Your task to perform on an android device: Go to notification settings Image 0: 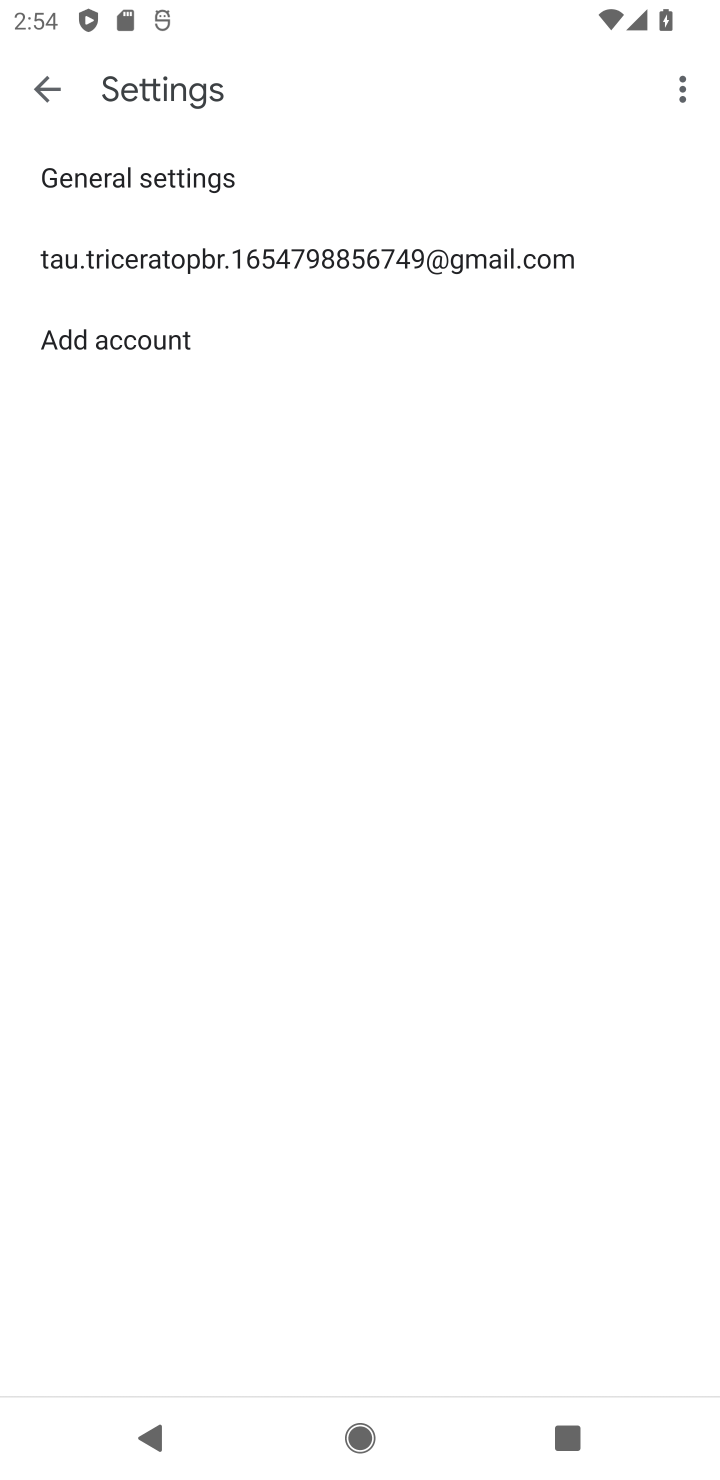
Step 0: press back button
Your task to perform on an android device: Go to notification settings Image 1: 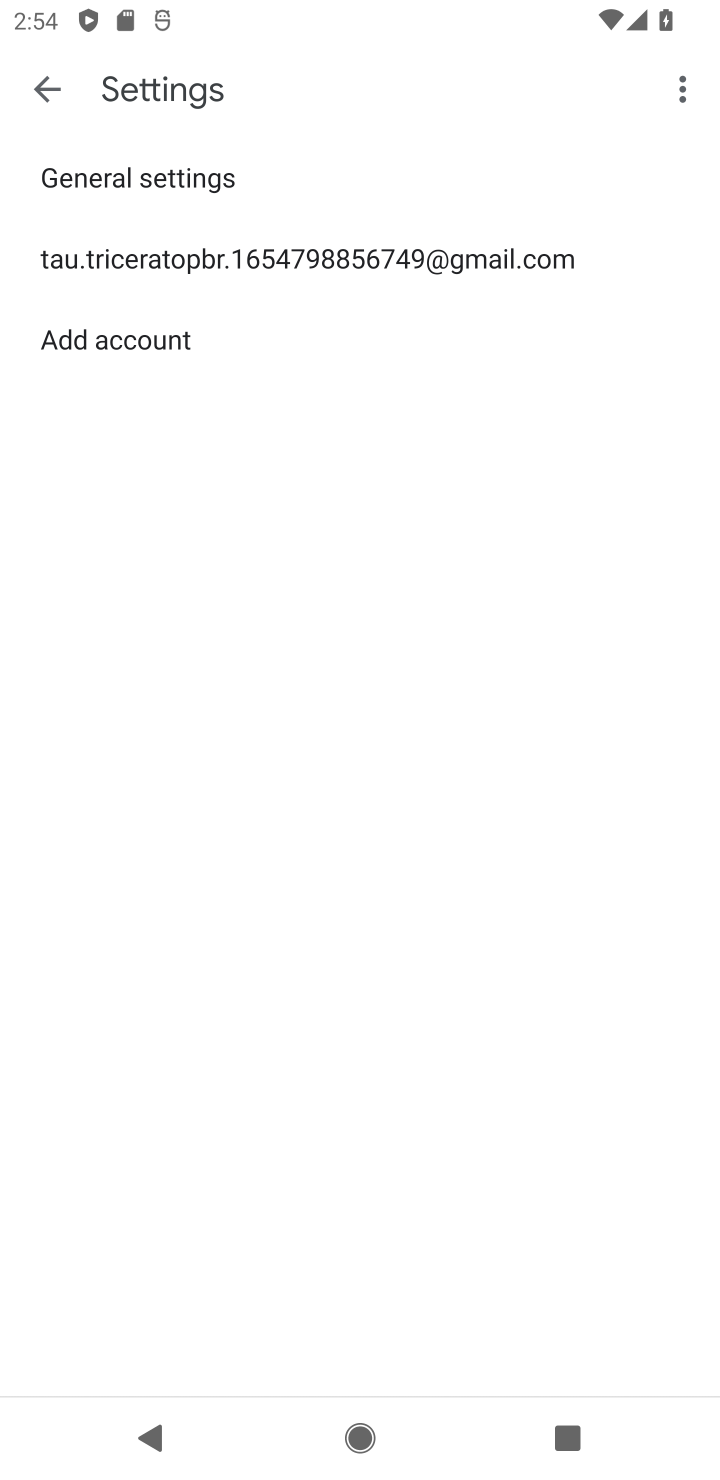
Step 1: press home button
Your task to perform on an android device: Go to notification settings Image 2: 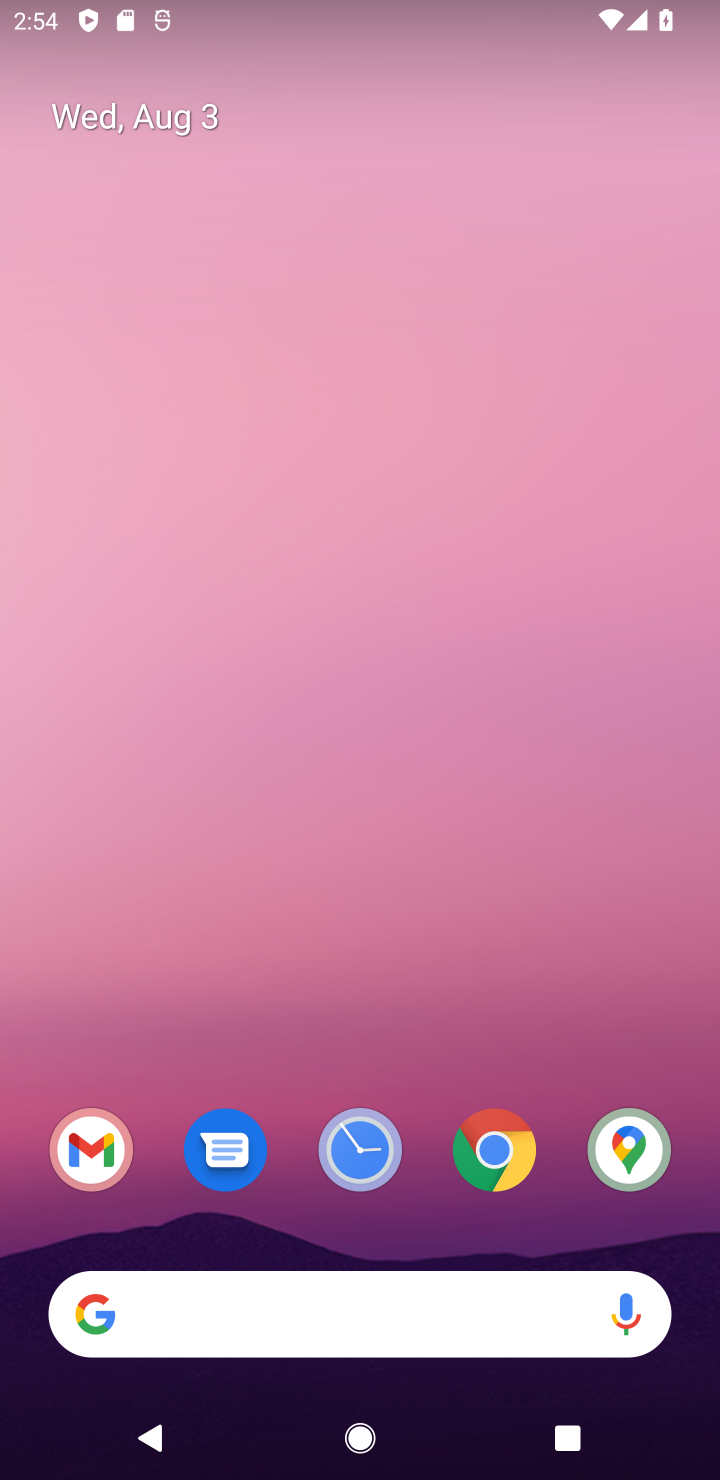
Step 2: drag from (359, 1291) to (332, 137)
Your task to perform on an android device: Go to notification settings Image 3: 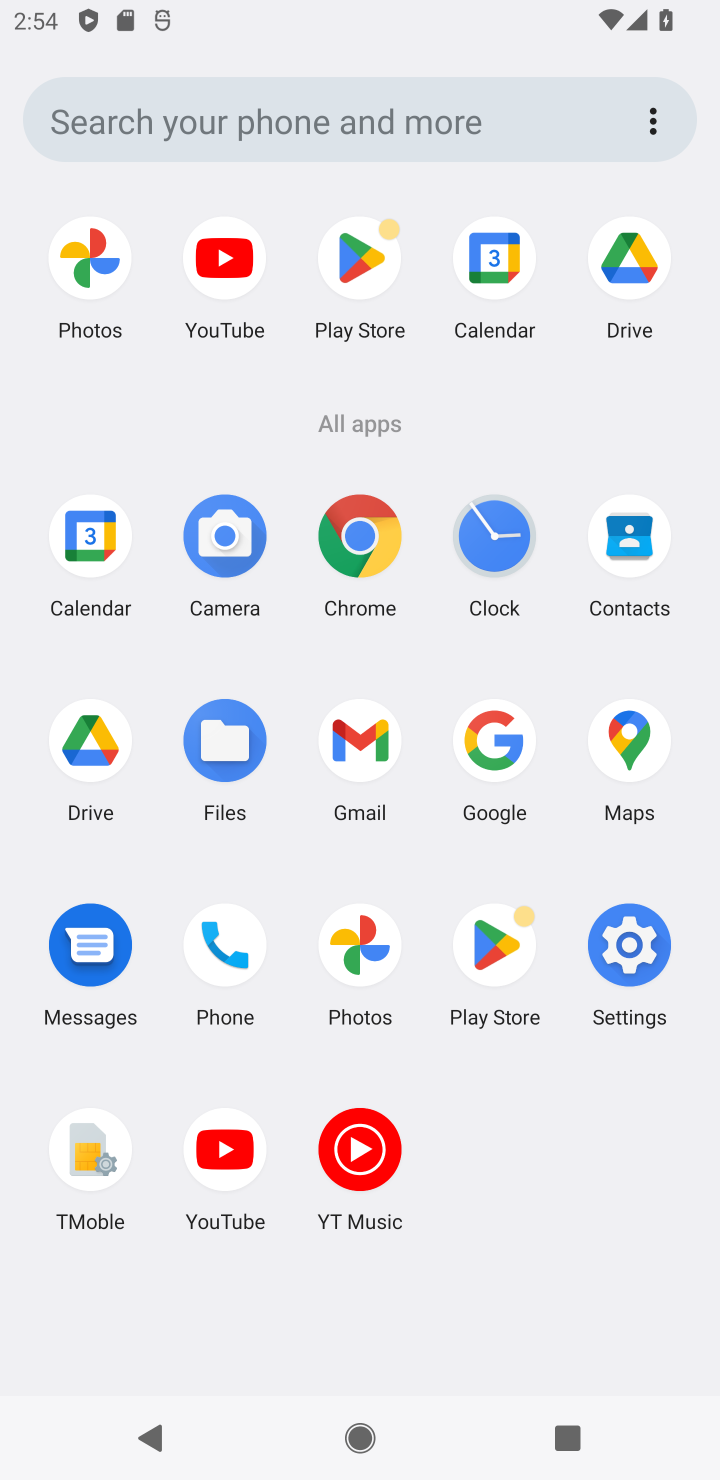
Step 3: click (575, 975)
Your task to perform on an android device: Go to notification settings Image 4: 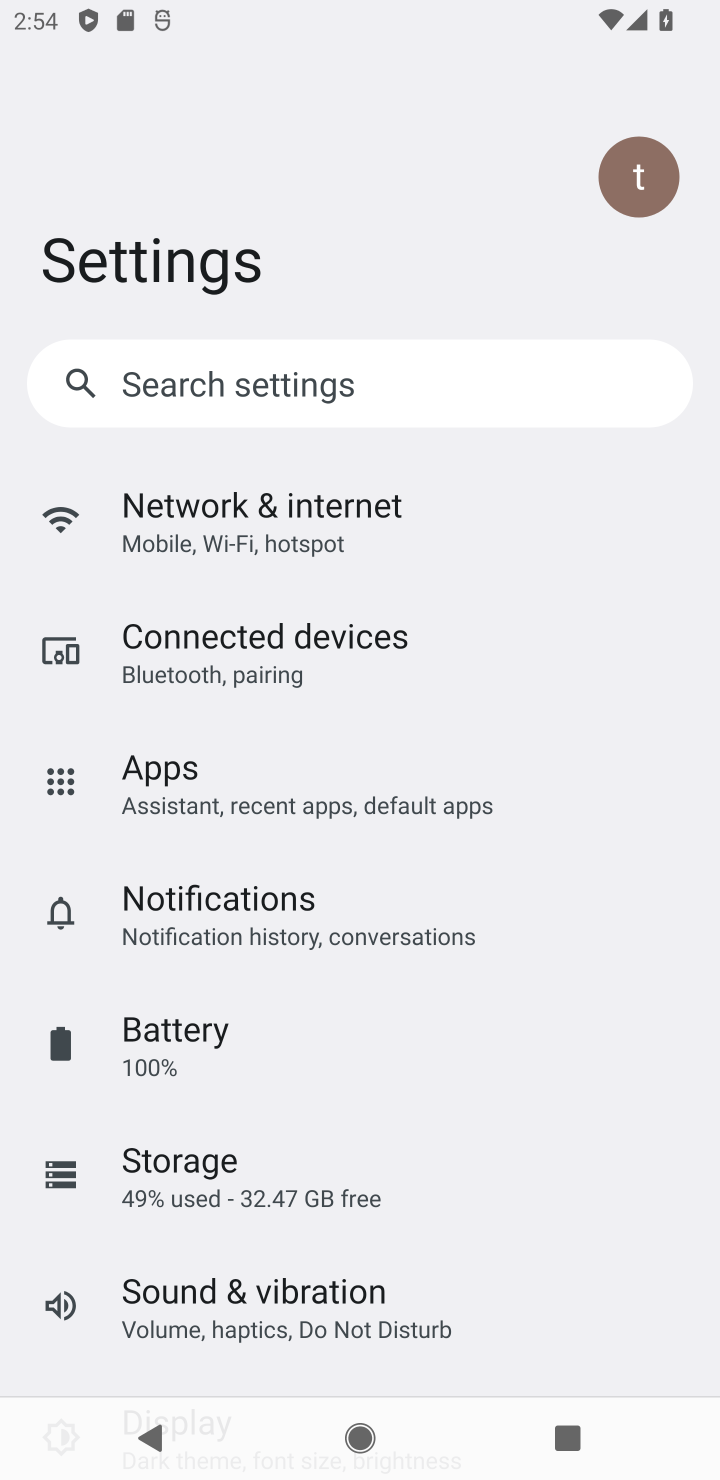
Step 4: click (231, 937)
Your task to perform on an android device: Go to notification settings Image 5: 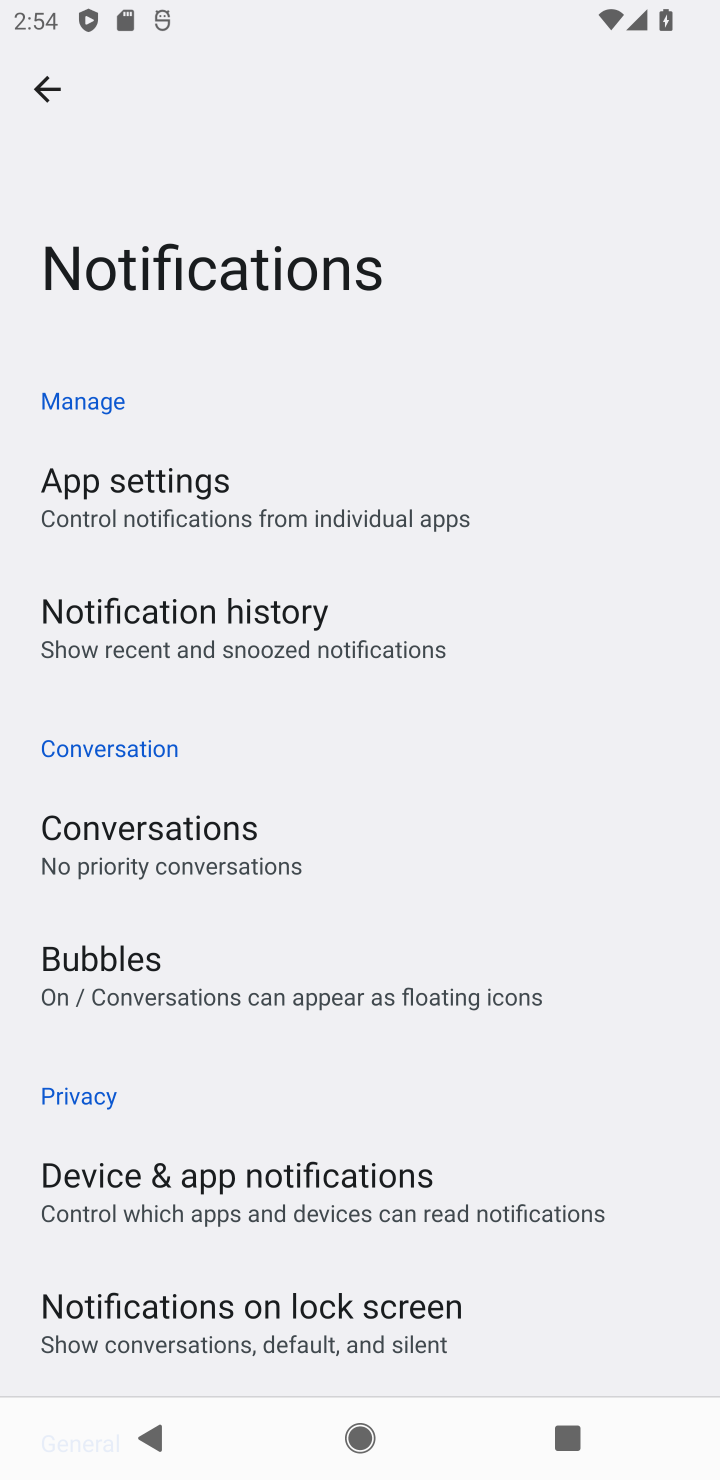
Step 5: task complete